Your task to perform on an android device: What's the weather today? Image 0: 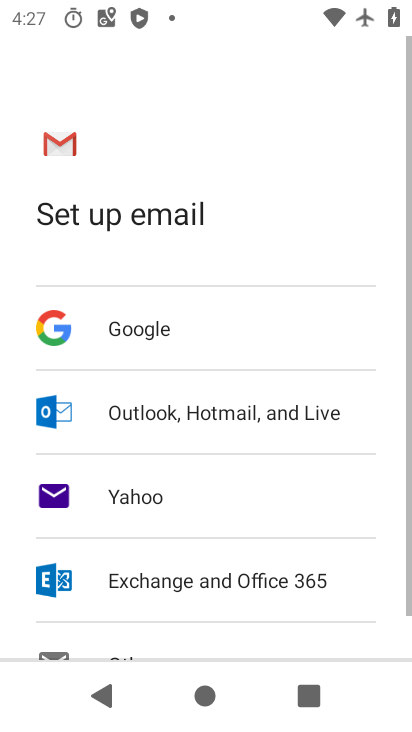
Step 0: press home button
Your task to perform on an android device: What's the weather today? Image 1: 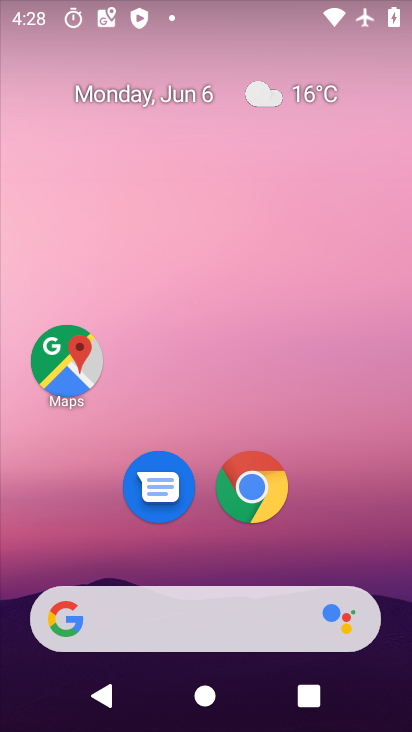
Step 1: click (313, 103)
Your task to perform on an android device: What's the weather today? Image 2: 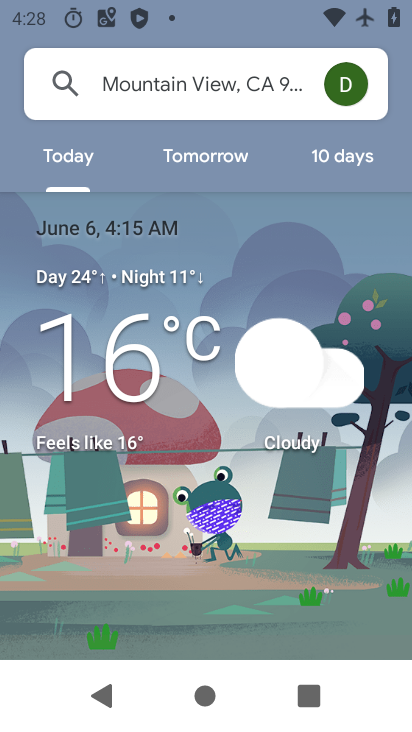
Step 2: task complete